Your task to perform on an android device: change timer sound Image 0: 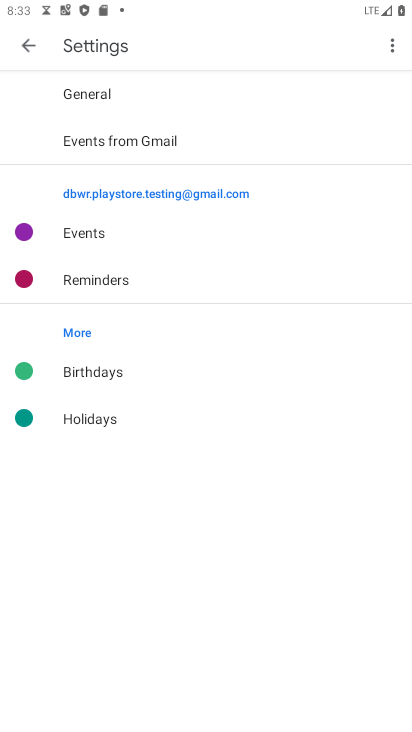
Step 0: press back button
Your task to perform on an android device: change timer sound Image 1: 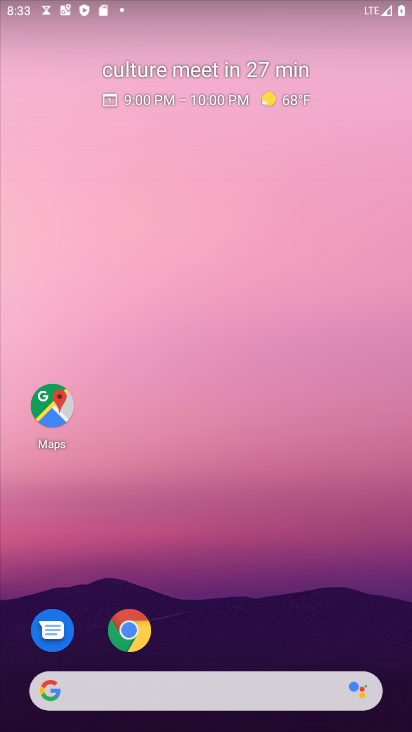
Step 1: drag from (243, 625) to (120, 164)
Your task to perform on an android device: change timer sound Image 2: 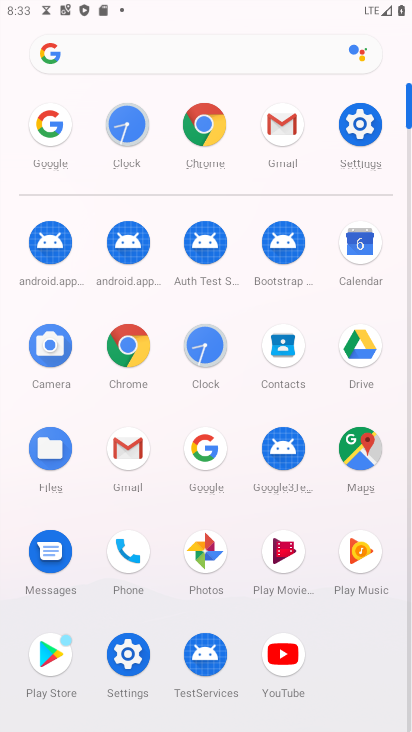
Step 2: click (127, 125)
Your task to perform on an android device: change timer sound Image 3: 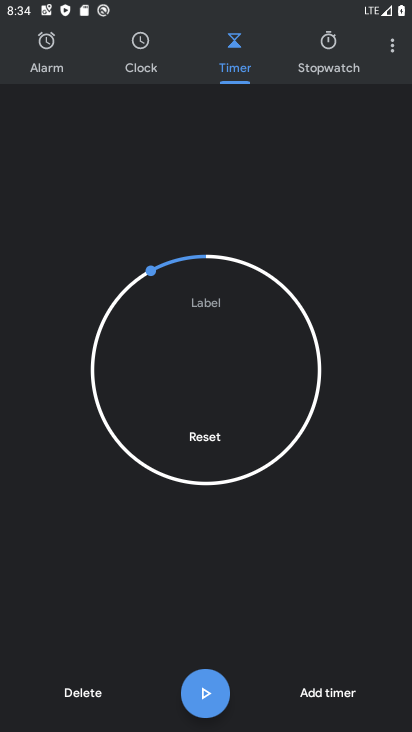
Step 3: click (396, 48)
Your task to perform on an android device: change timer sound Image 4: 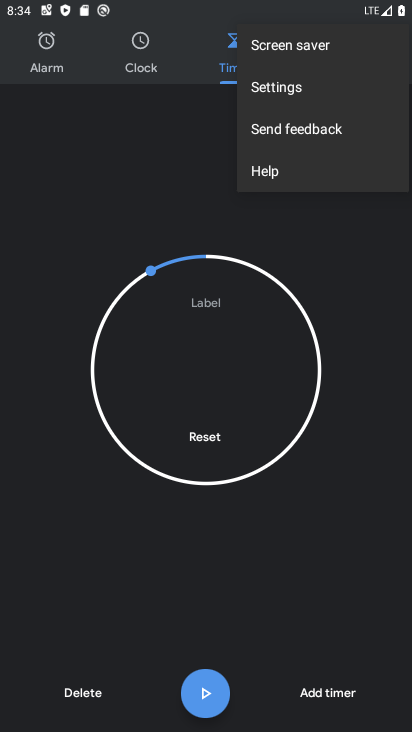
Step 4: click (267, 94)
Your task to perform on an android device: change timer sound Image 5: 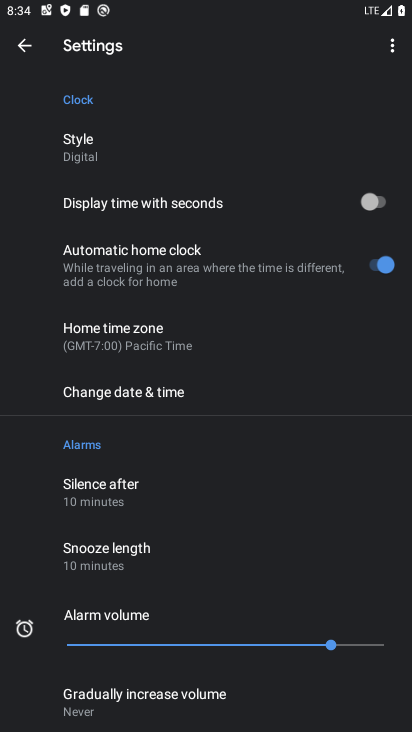
Step 5: drag from (183, 497) to (212, 366)
Your task to perform on an android device: change timer sound Image 6: 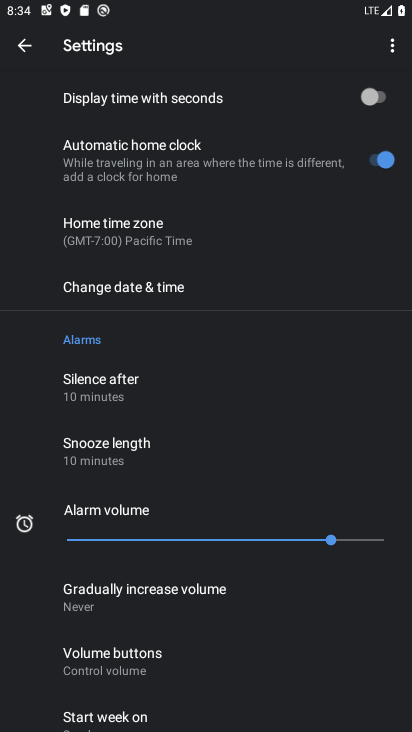
Step 6: drag from (170, 476) to (185, 360)
Your task to perform on an android device: change timer sound Image 7: 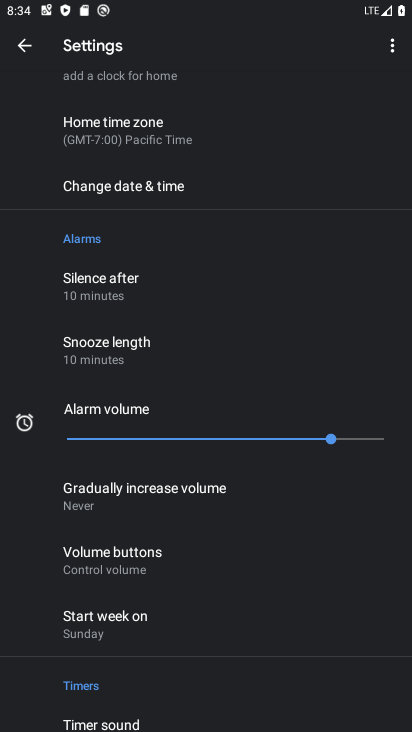
Step 7: drag from (220, 540) to (212, 320)
Your task to perform on an android device: change timer sound Image 8: 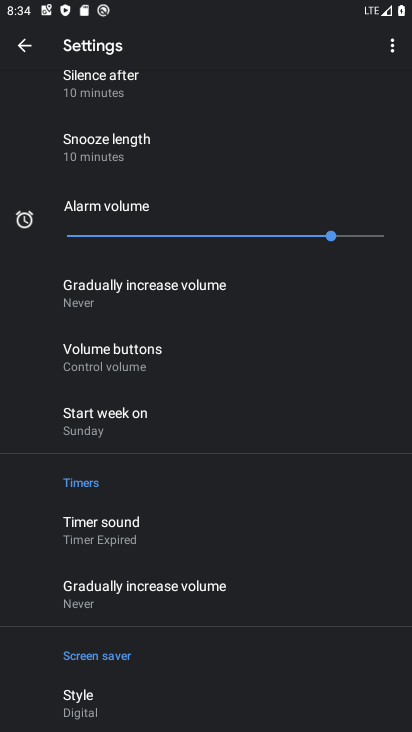
Step 8: click (109, 540)
Your task to perform on an android device: change timer sound Image 9: 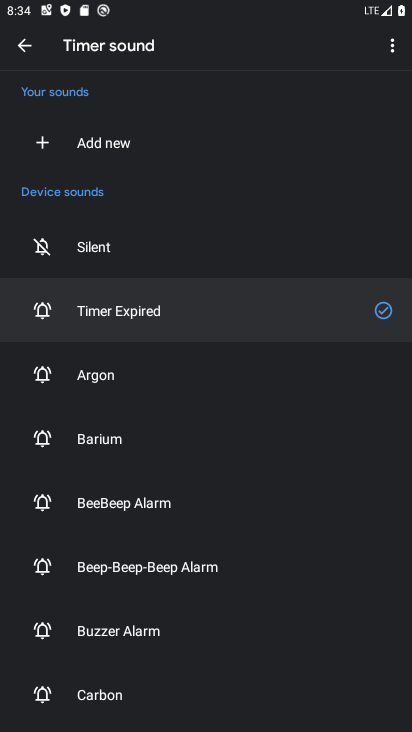
Step 9: drag from (149, 470) to (174, 341)
Your task to perform on an android device: change timer sound Image 10: 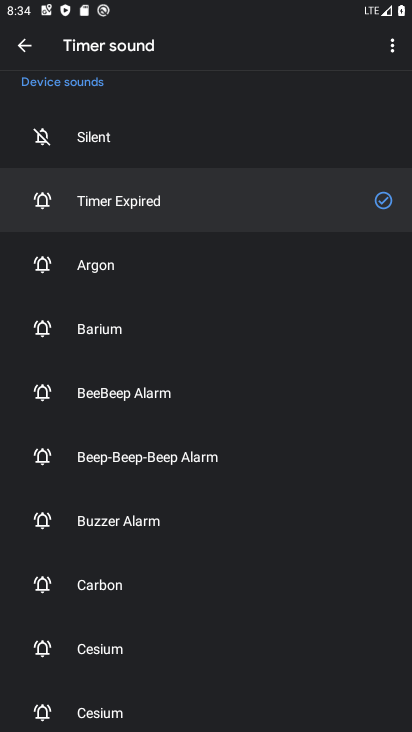
Step 10: drag from (145, 494) to (115, 341)
Your task to perform on an android device: change timer sound Image 11: 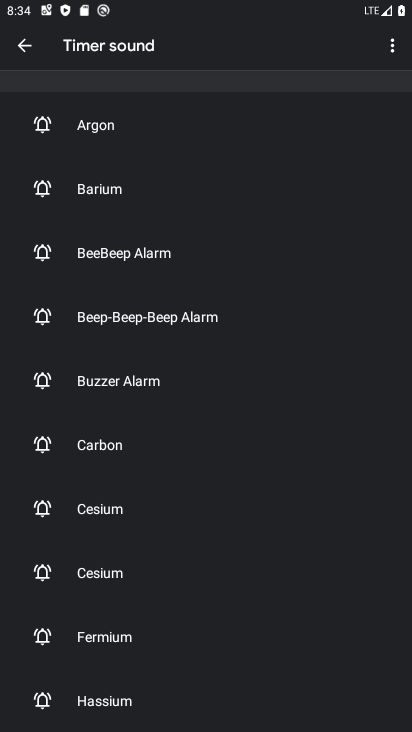
Step 11: drag from (148, 472) to (120, 272)
Your task to perform on an android device: change timer sound Image 12: 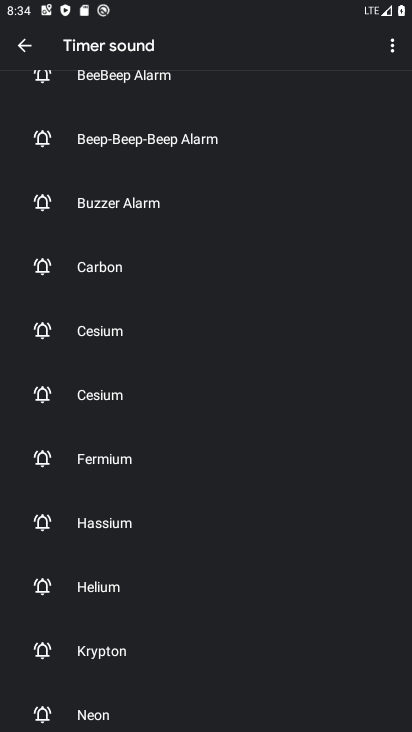
Step 12: click (104, 382)
Your task to perform on an android device: change timer sound Image 13: 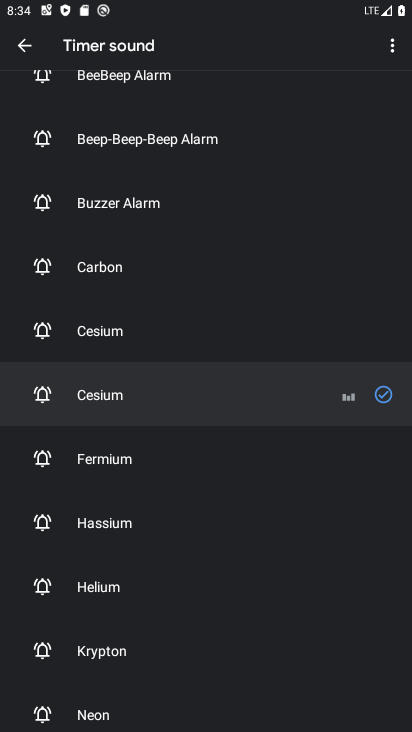
Step 13: task complete